Your task to perform on an android device: turn pop-ups on in chrome Image 0: 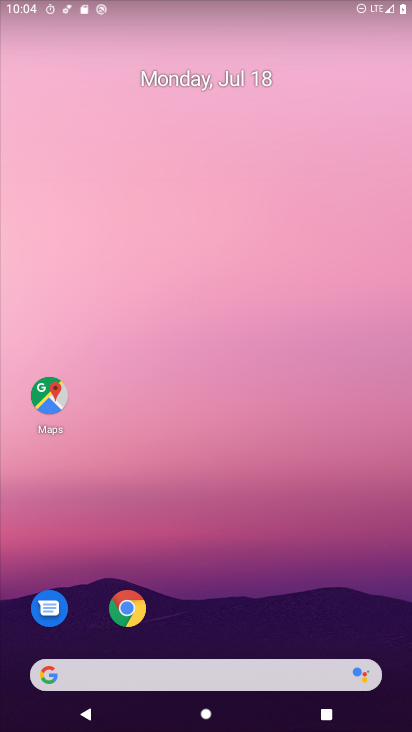
Step 0: click (124, 615)
Your task to perform on an android device: turn pop-ups on in chrome Image 1: 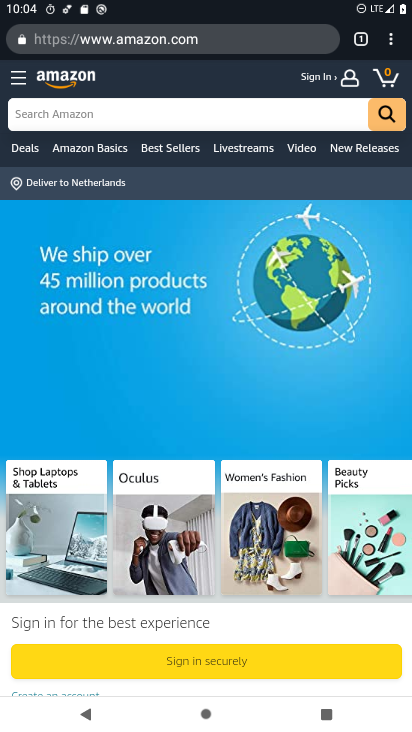
Step 1: click (391, 45)
Your task to perform on an android device: turn pop-ups on in chrome Image 2: 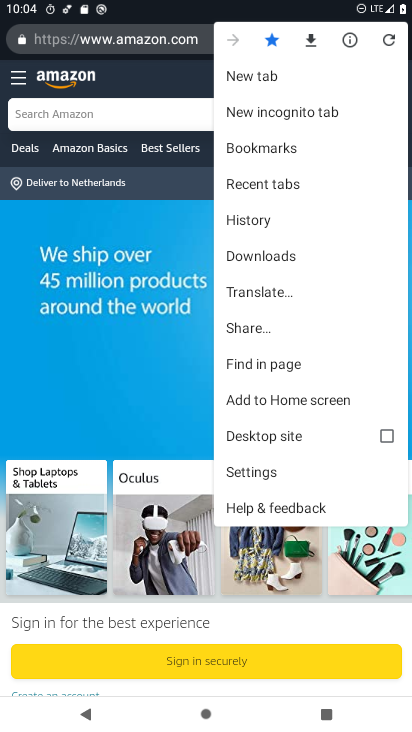
Step 2: click (273, 478)
Your task to perform on an android device: turn pop-ups on in chrome Image 3: 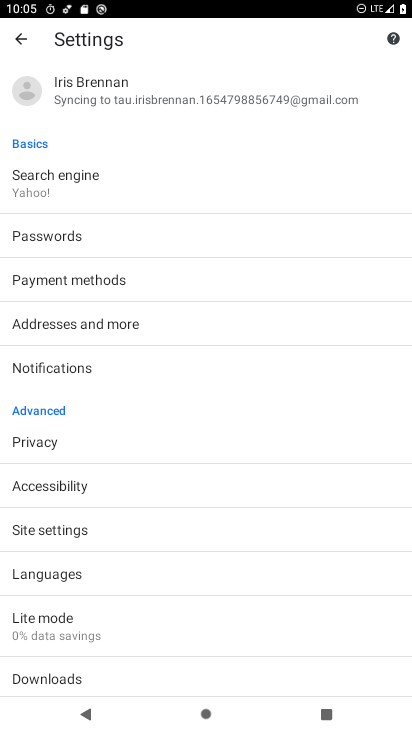
Step 3: click (93, 530)
Your task to perform on an android device: turn pop-ups on in chrome Image 4: 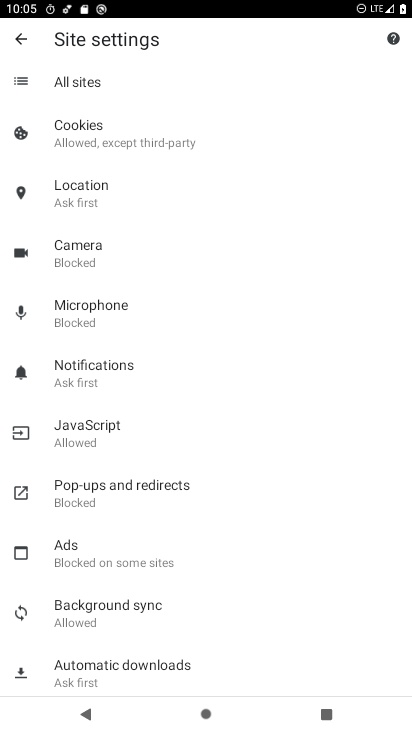
Step 4: click (97, 500)
Your task to perform on an android device: turn pop-ups on in chrome Image 5: 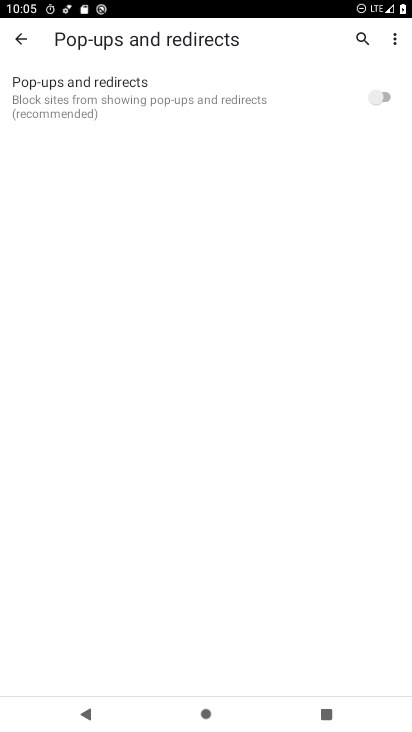
Step 5: click (391, 92)
Your task to perform on an android device: turn pop-ups on in chrome Image 6: 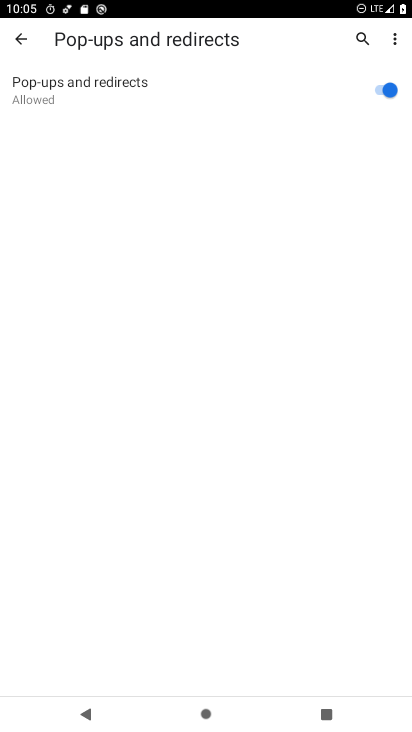
Step 6: task complete